Your task to perform on an android device: turn on data saver in the chrome app Image 0: 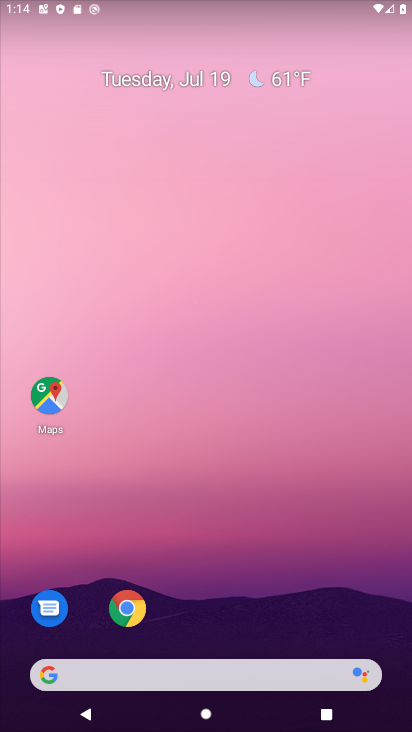
Step 0: drag from (228, 615) to (242, 183)
Your task to perform on an android device: turn on data saver in the chrome app Image 1: 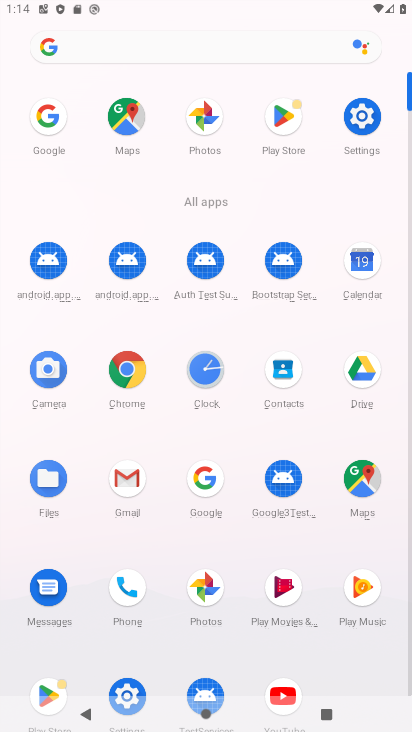
Step 1: click (127, 375)
Your task to perform on an android device: turn on data saver in the chrome app Image 2: 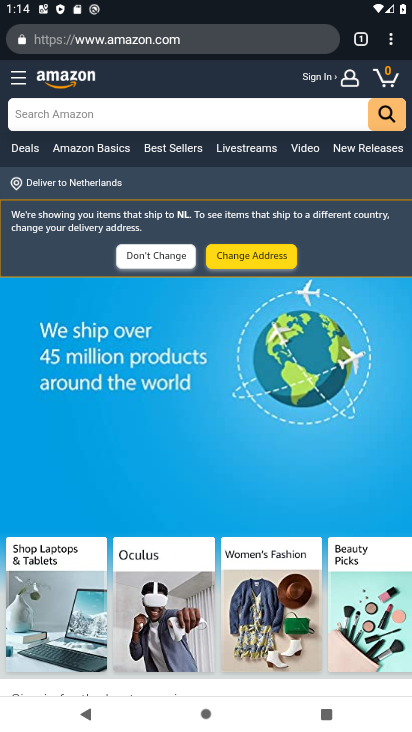
Step 2: click (395, 50)
Your task to perform on an android device: turn on data saver in the chrome app Image 3: 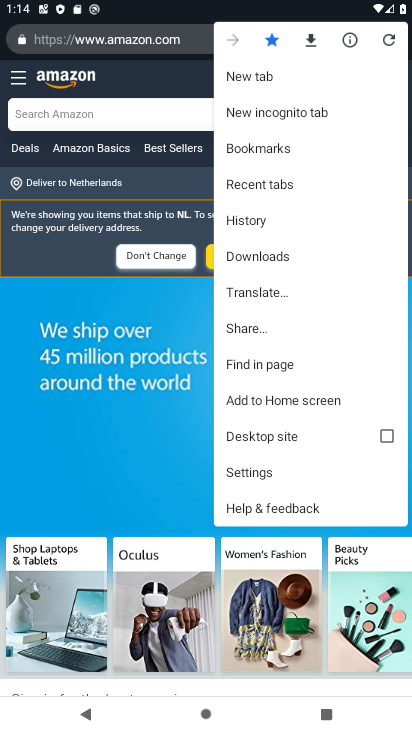
Step 3: click (272, 478)
Your task to perform on an android device: turn on data saver in the chrome app Image 4: 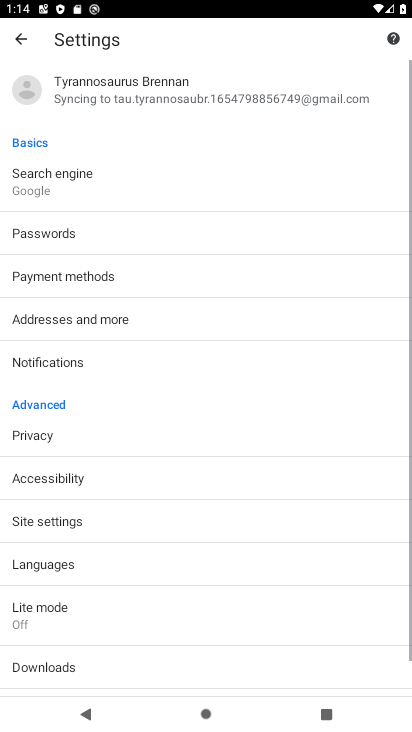
Step 4: click (54, 631)
Your task to perform on an android device: turn on data saver in the chrome app Image 5: 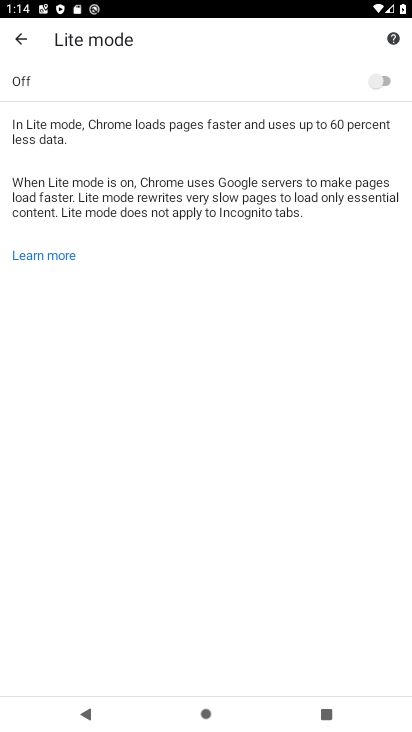
Step 5: click (382, 81)
Your task to perform on an android device: turn on data saver in the chrome app Image 6: 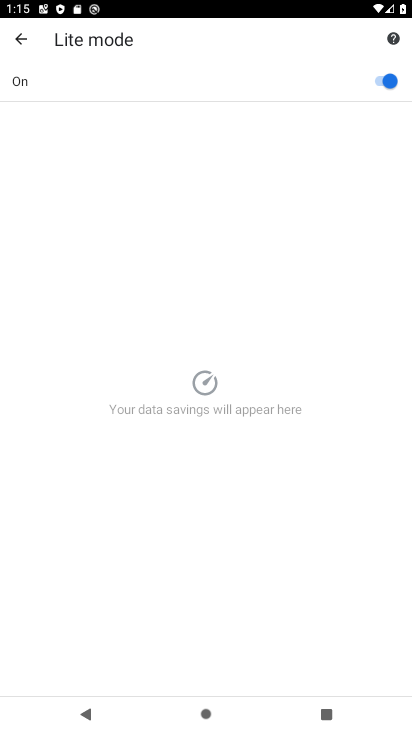
Step 6: task complete